Your task to perform on an android device: delete browsing data in the chrome app Image 0: 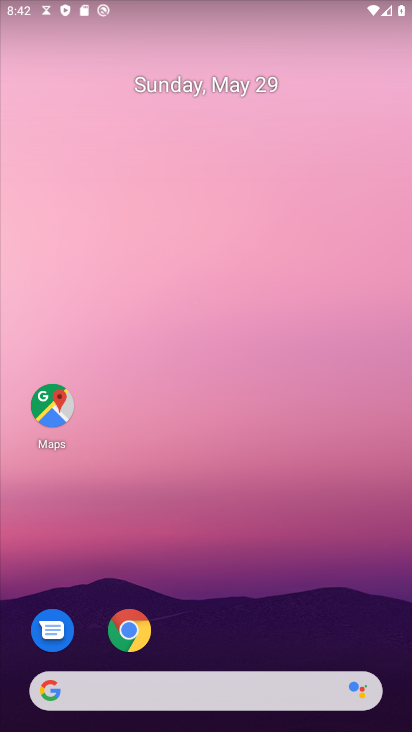
Step 0: click (133, 629)
Your task to perform on an android device: delete browsing data in the chrome app Image 1: 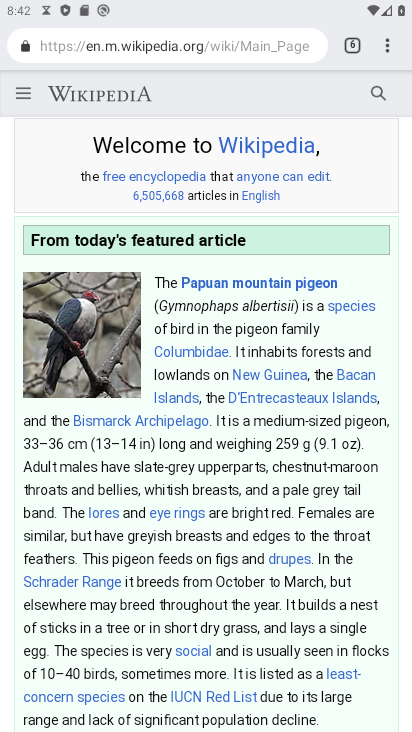
Step 1: click (390, 46)
Your task to perform on an android device: delete browsing data in the chrome app Image 2: 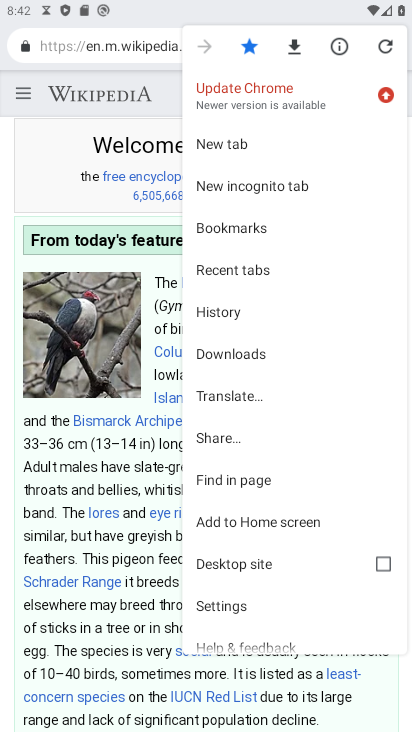
Step 2: click (232, 306)
Your task to perform on an android device: delete browsing data in the chrome app Image 3: 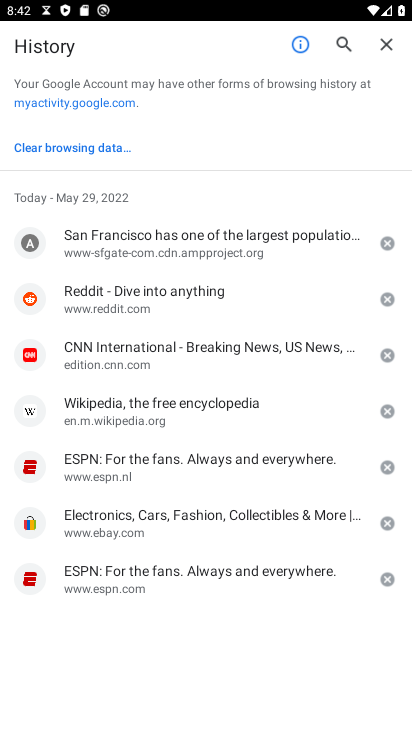
Step 3: click (85, 141)
Your task to perform on an android device: delete browsing data in the chrome app Image 4: 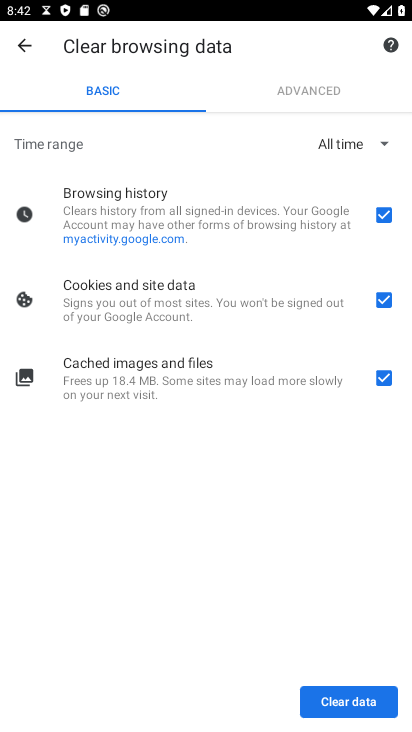
Step 4: click (342, 700)
Your task to perform on an android device: delete browsing data in the chrome app Image 5: 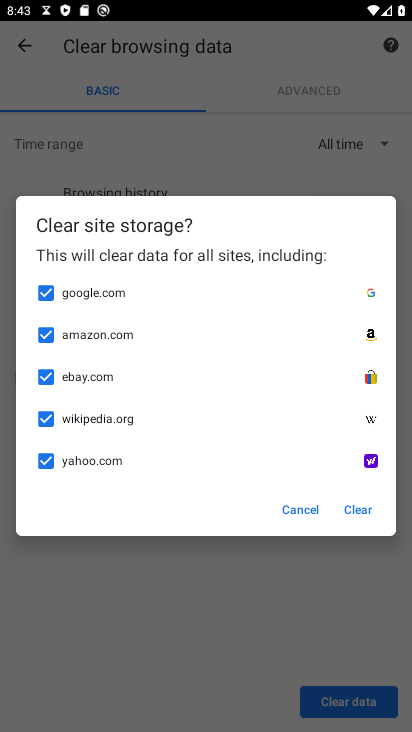
Step 5: click (364, 499)
Your task to perform on an android device: delete browsing data in the chrome app Image 6: 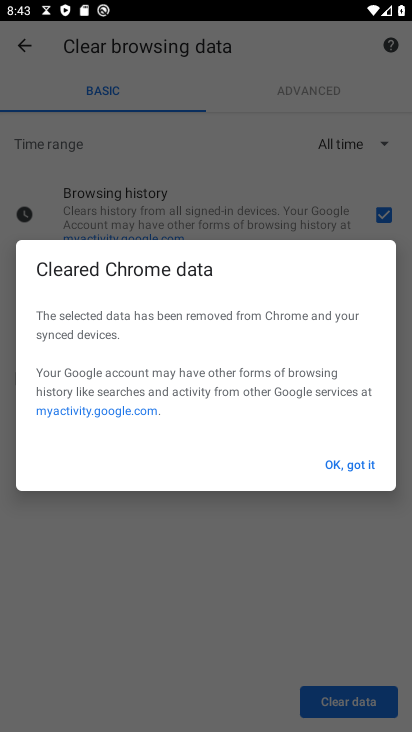
Step 6: click (364, 455)
Your task to perform on an android device: delete browsing data in the chrome app Image 7: 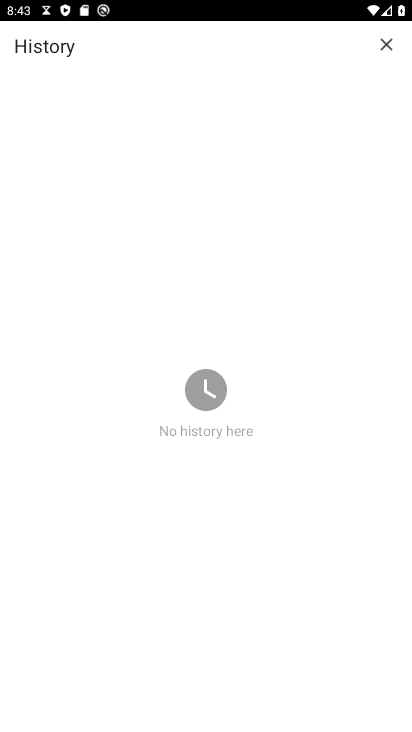
Step 7: task complete